Your task to perform on an android device: allow notifications from all sites in the chrome app Image 0: 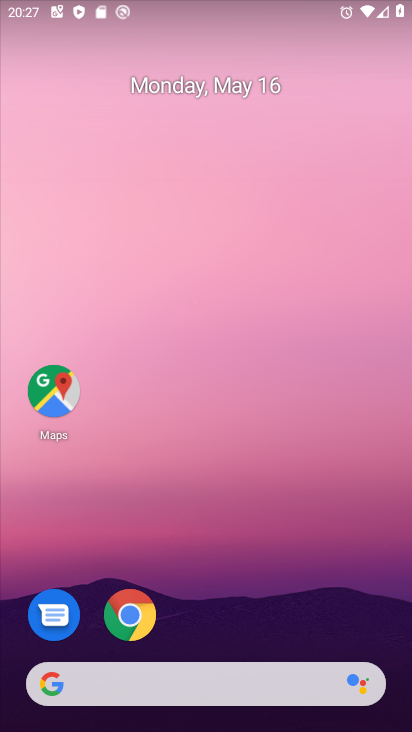
Step 0: click (128, 619)
Your task to perform on an android device: allow notifications from all sites in the chrome app Image 1: 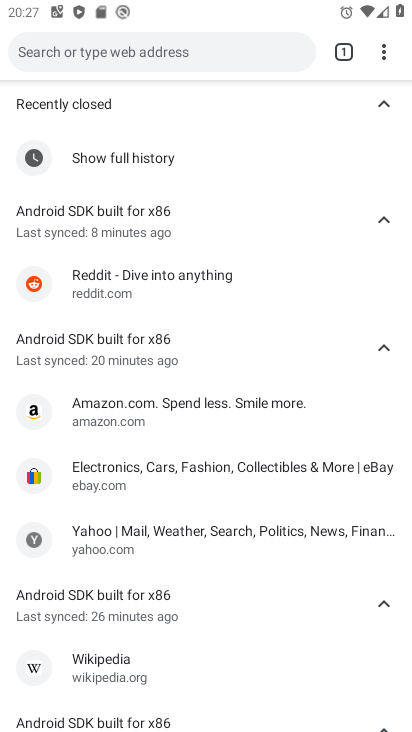
Step 1: click (392, 52)
Your task to perform on an android device: allow notifications from all sites in the chrome app Image 2: 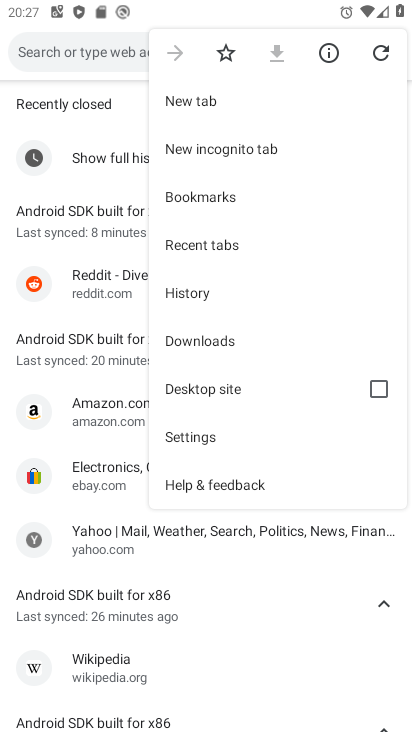
Step 2: click (225, 426)
Your task to perform on an android device: allow notifications from all sites in the chrome app Image 3: 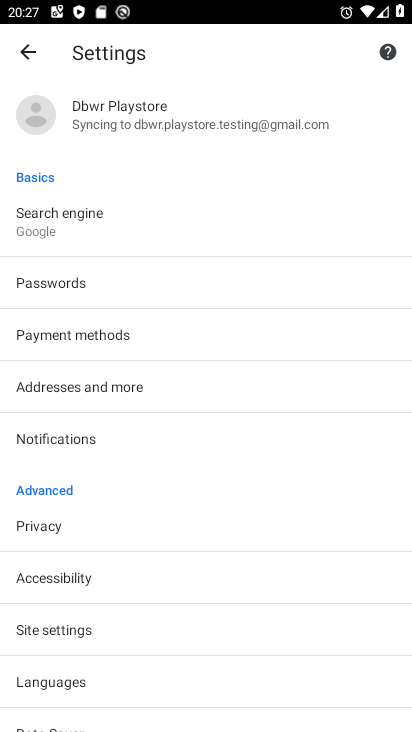
Step 3: click (121, 434)
Your task to perform on an android device: allow notifications from all sites in the chrome app Image 4: 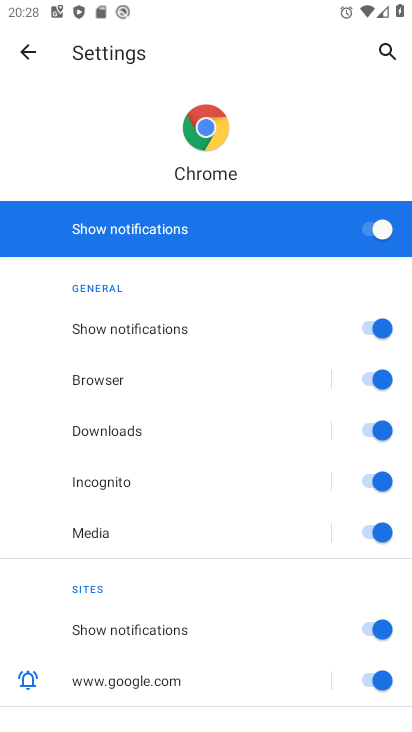
Step 4: task complete